Your task to perform on an android device: toggle location history Image 0: 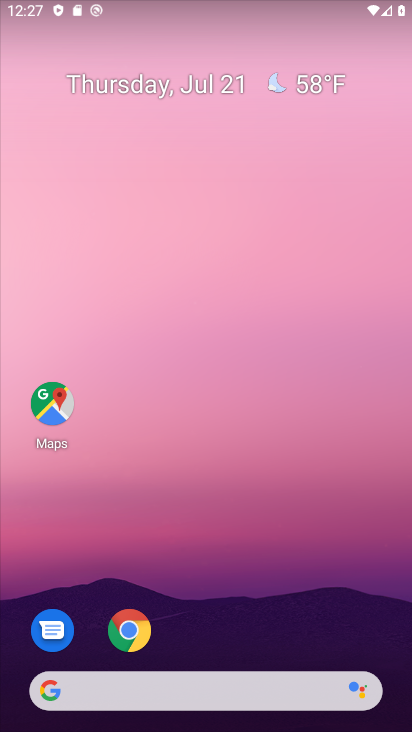
Step 0: drag from (196, 639) to (211, 99)
Your task to perform on an android device: toggle location history Image 1: 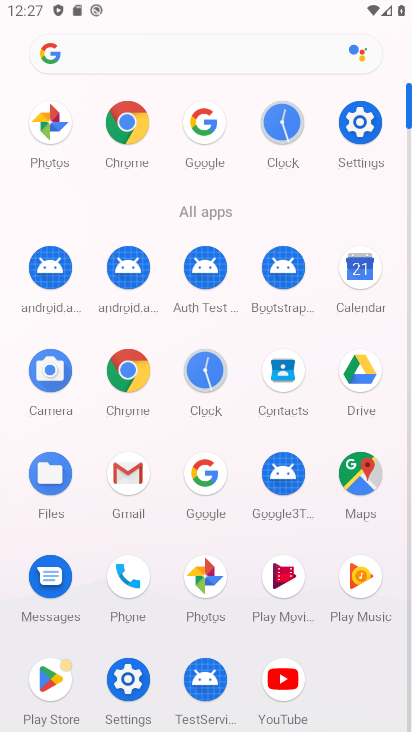
Step 1: click (364, 122)
Your task to perform on an android device: toggle location history Image 2: 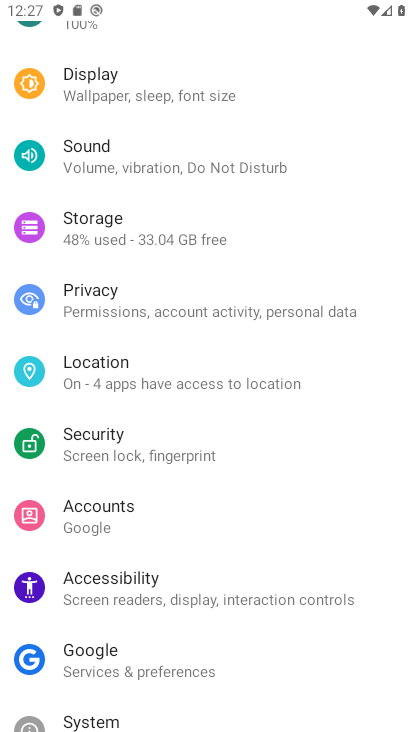
Step 2: click (125, 380)
Your task to perform on an android device: toggle location history Image 3: 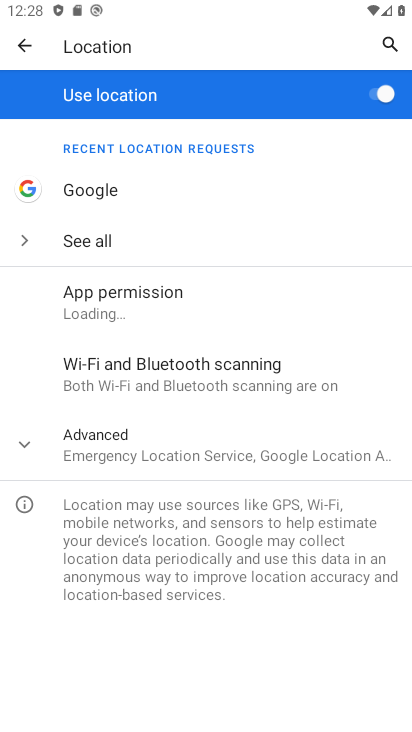
Step 3: click (121, 446)
Your task to perform on an android device: toggle location history Image 4: 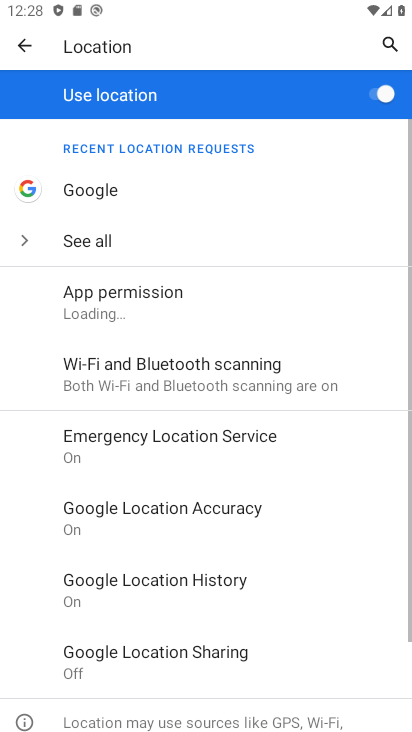
Step 4: click (219, 585)
Your task to perform on an android device: toggle location history Image 5: 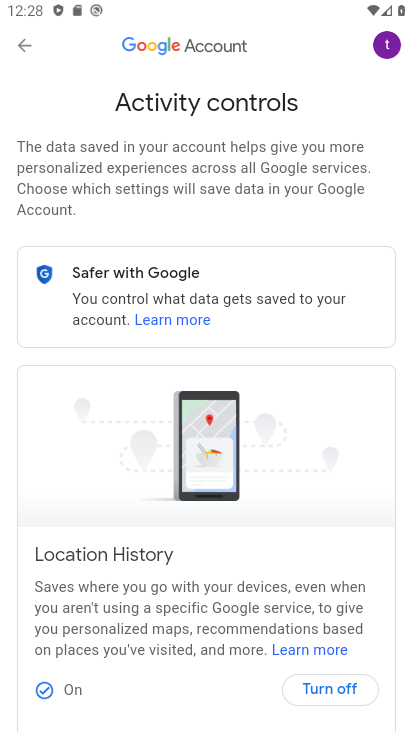
Step 5: drag from (209, 562) to (241, 221)
Your task to perform on an android device: toggle location history Image 6: 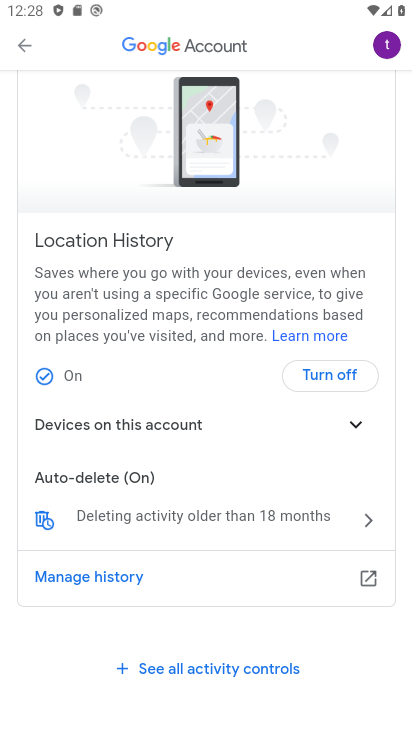
Step 6: click (319, 374)
Your task to perform on an android device: toggle location history Image 7: 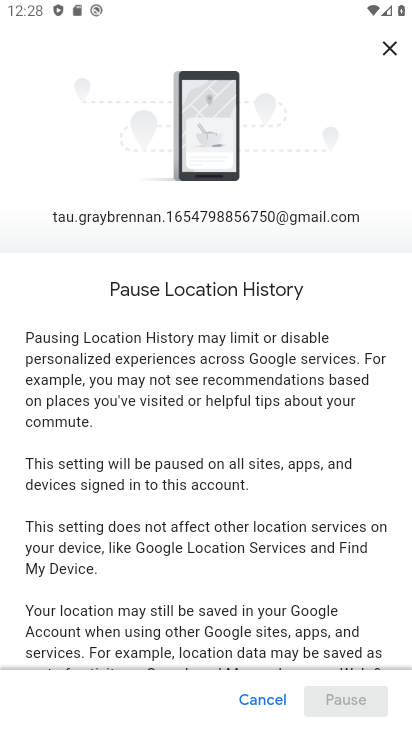
Step 7: drag from (333, 615) to (330, 173)
Your task to perform on an android device: toggle location history Image 8: 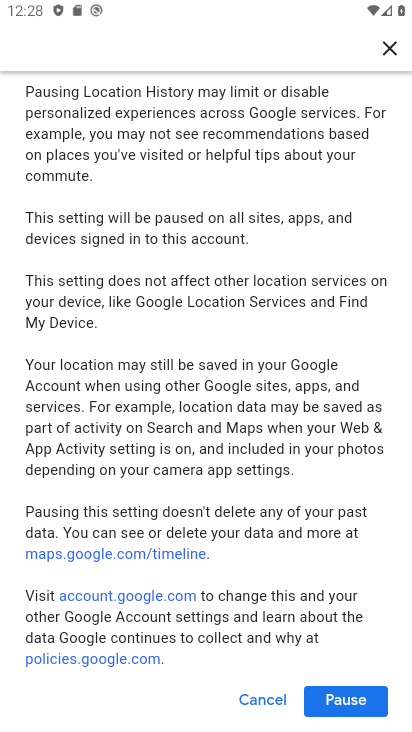
Step 8: click (363, 699)
Your task to perform on an android device: toggle location history Image 9: 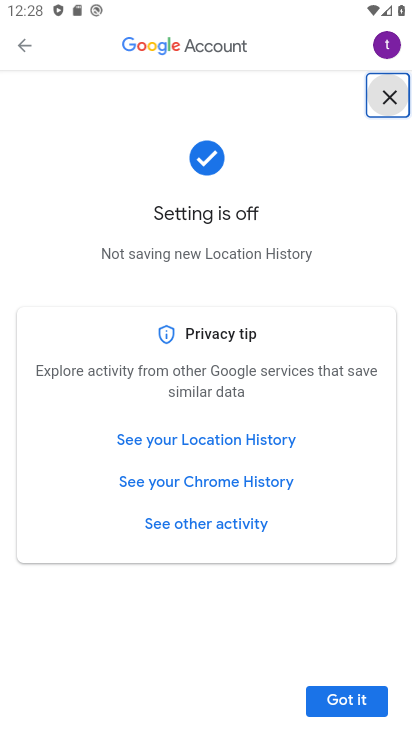
Step 9: click (344, 691)
Your task to perform on an android device: toggle location history Image 10: 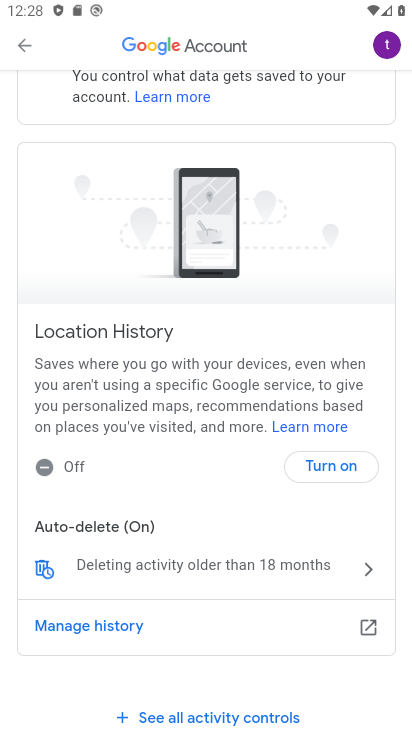
Step 10: task complete